Your task to perform on an android device: Go to Google maps Image 0: 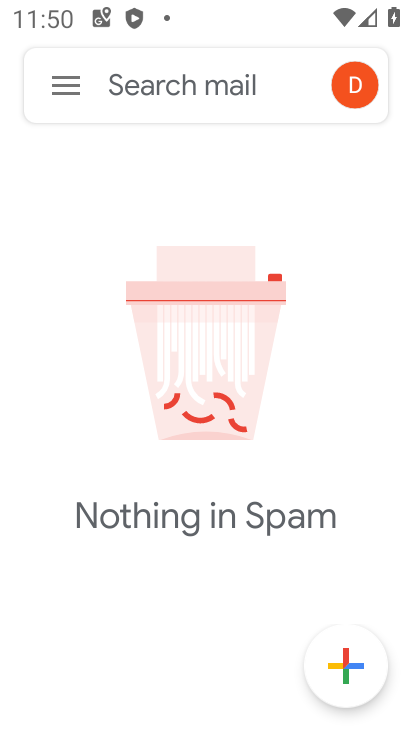
Step 0: press home button
Your task to perform on an android device: Go to Google maps Image 1: 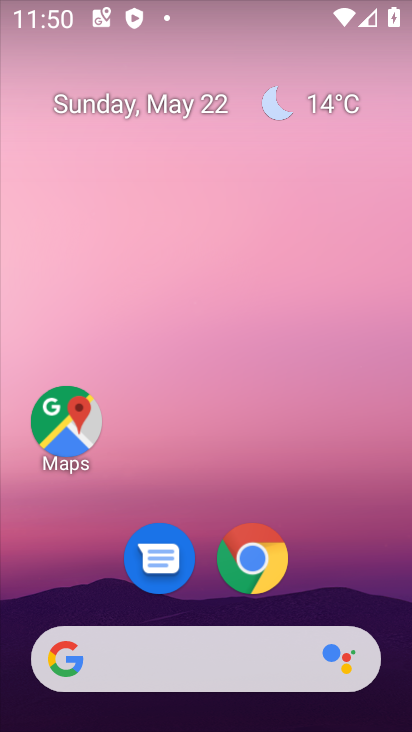
Step 1: click (61, 420)
Your task to perform on an android device: Go to Google maps Image 2: 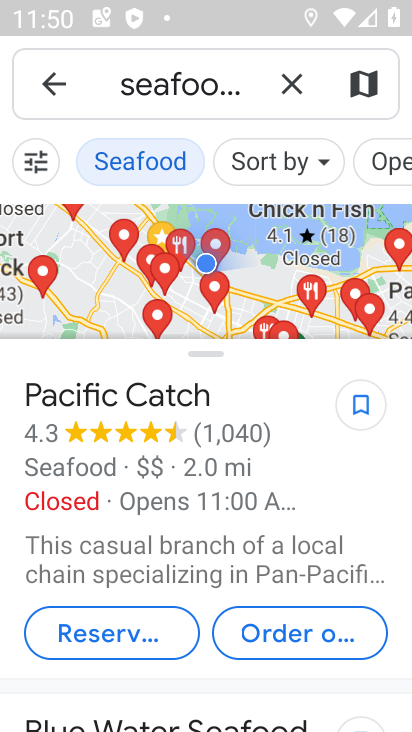
Step 2: task complete